Your task to perform on an android device: check storage Image 0: 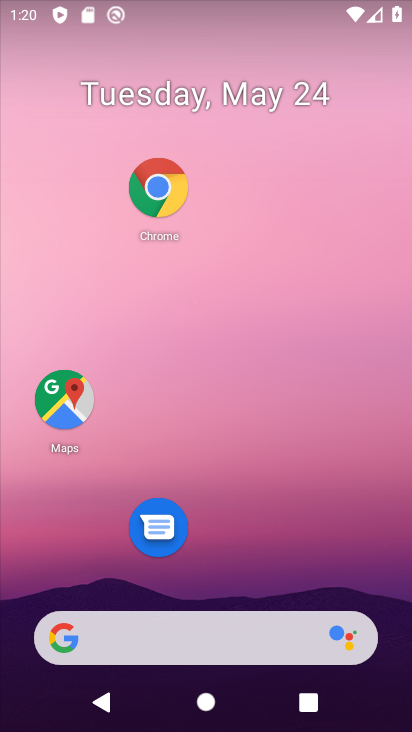
Step 0: drag from (235, 525) to (236, 126)
Your task to perform on an android device: check storage Image 1: 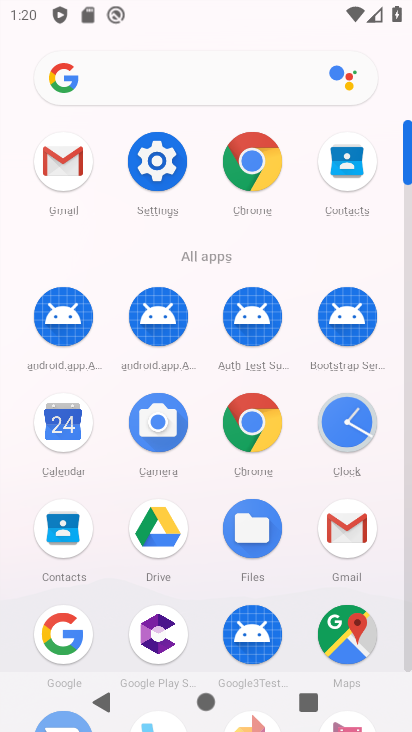
Step 1: click (164, 163)
Your task to perform on an android device: check storage Image 2: 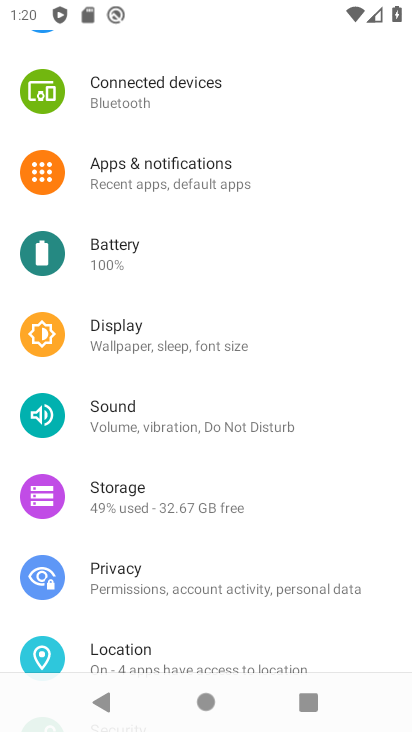
Step 2: click (109, 496)
Your task to perform on an android device: check storage Image 3: 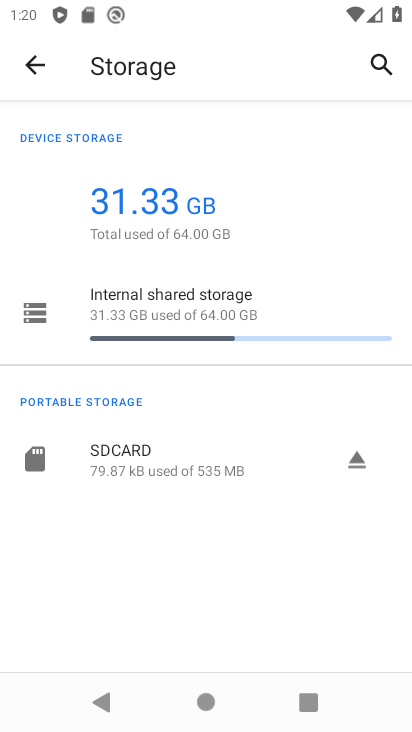
Step 3: task complete